Your task to perform on an android device: turn on translation in the chrome app Image 0: 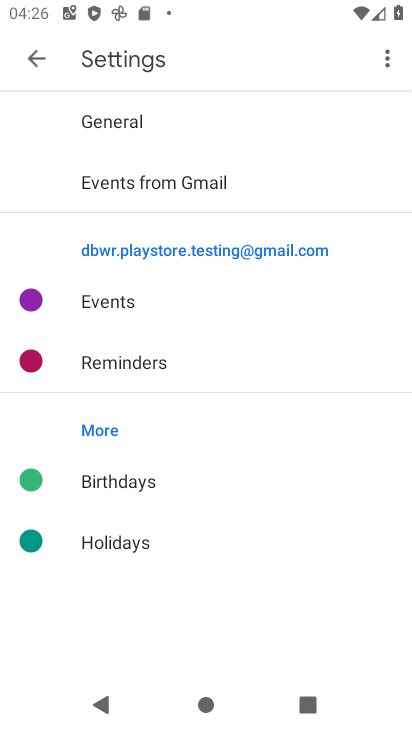
Step 0: press home button
Your task to perform on an android device: turn on translation in the chrome app Image 1: 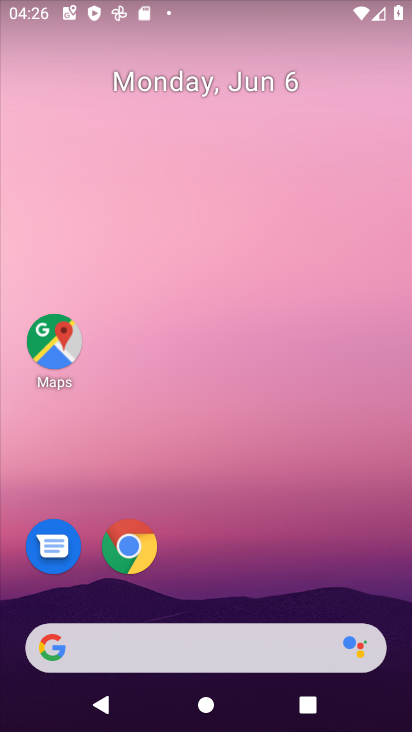
Step 1: drag from (287, 556) to (318, 9)
Your task to perform on an android device: turn on translation in the chrome app Image 2: 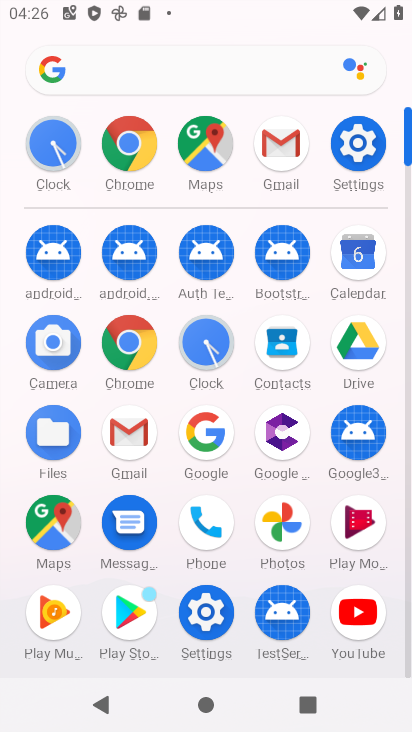
Step 2: click (111, 147)
Your task to perform on an android device: turn on translation in the chrome app Image 3: 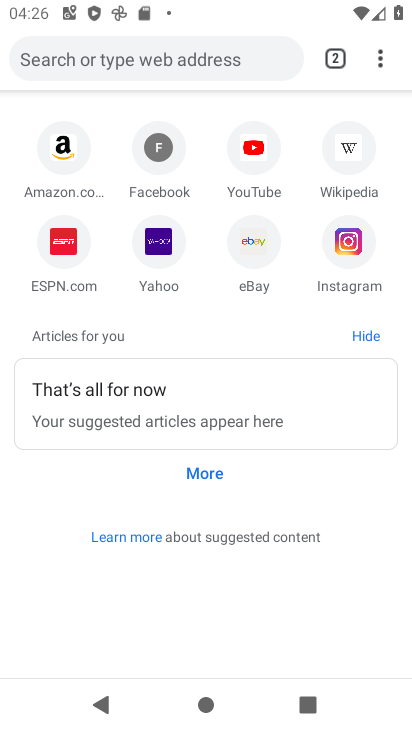
Step 3: click (373, 75)
Your task to perform on an android device: turn on translation in the chrome app Image 4: 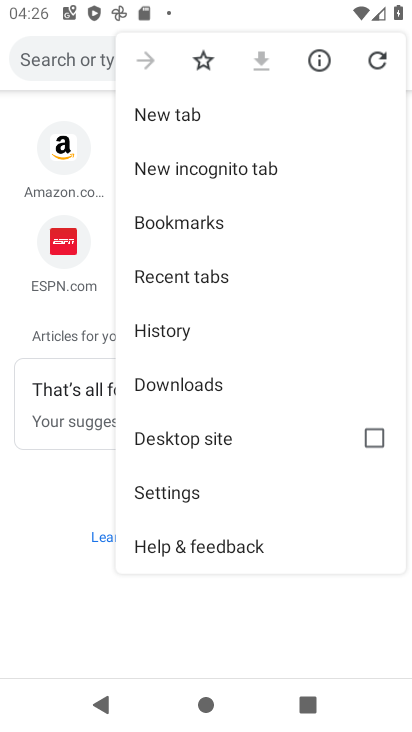
Step 4: click (197, 506)
Your task to perform on an android device: turn on translation in the chrome app Image 5: 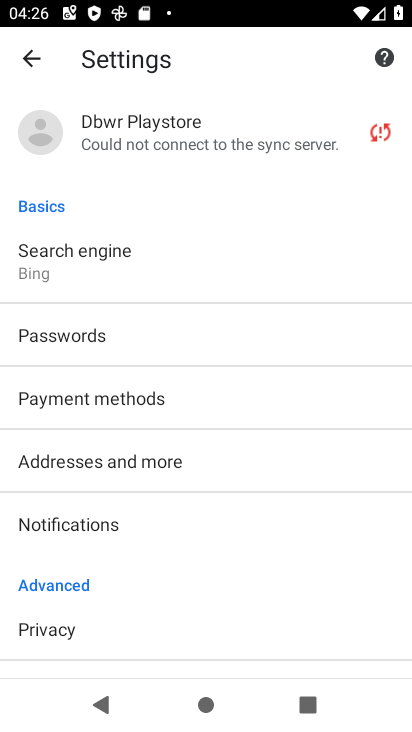
Step 5: task complete